Your task to perform on an android device: see sites visited before in the chrome app Image 0: 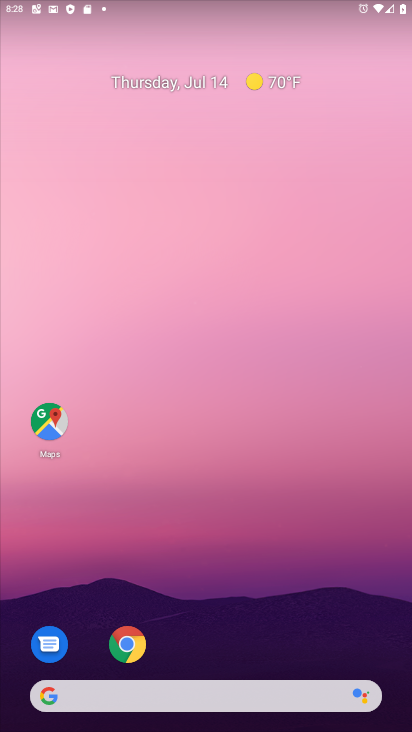
Step 0: drag from (184, 639) to (218, 236)
Your task to perform on an android device: see sites visited before in the chrome app Image 1: 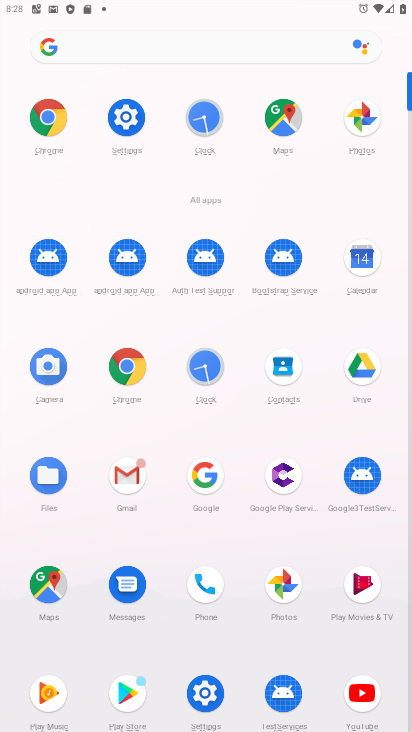
Step 1: click (49, 105)
Your task to perform on an android device: see sites visited before in the chrome app Image 2: 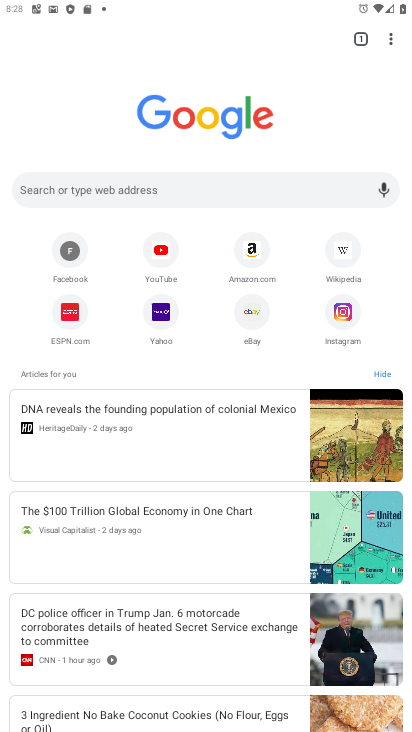
Step 2: click (385, 40)
Your task to perform on an android device: see sites visited before in the chrome app Image 3: 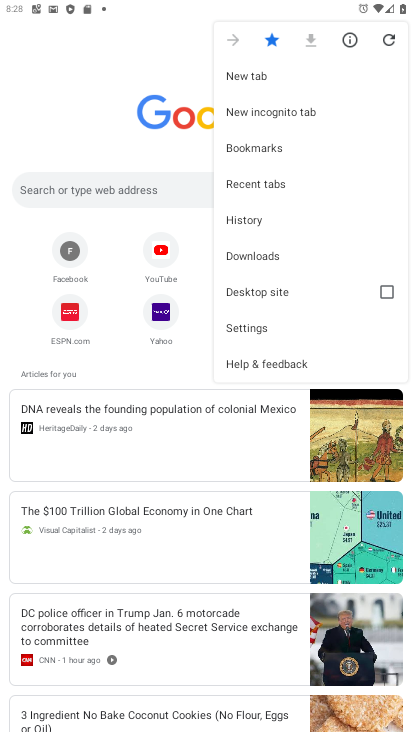
Step 3: click (267, 139)
Your task to perform on an android device: see sites visited before in the chrome app Image 4: 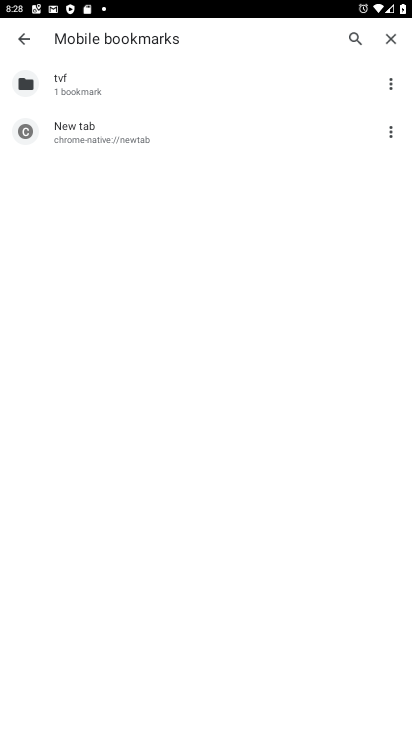
Step 4: task complete